Your task to perform on an android device: See recent photos Image 0: 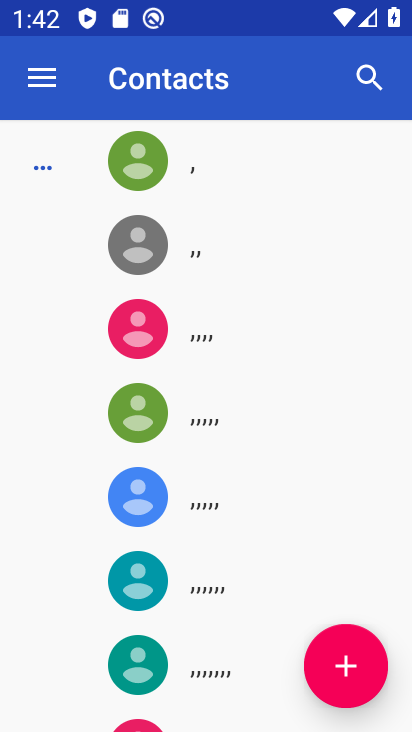
Step 0: press back button
Your task to perform on an android device: See recent photos Image 1: 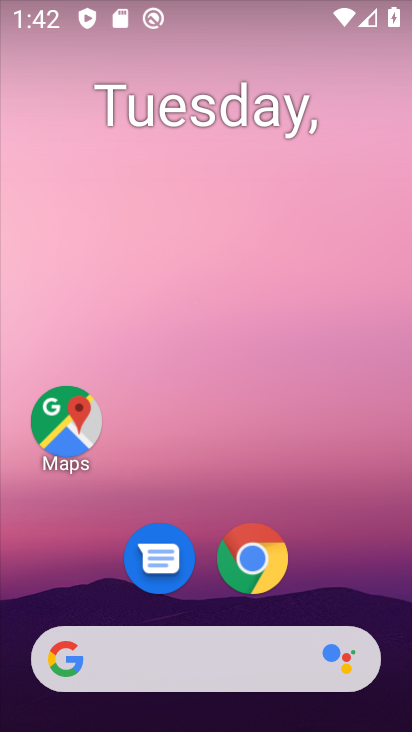
Step 1: drag from (183, 597) to (324, 39)
Your task to perform on an android device: See recent photos Image 2: 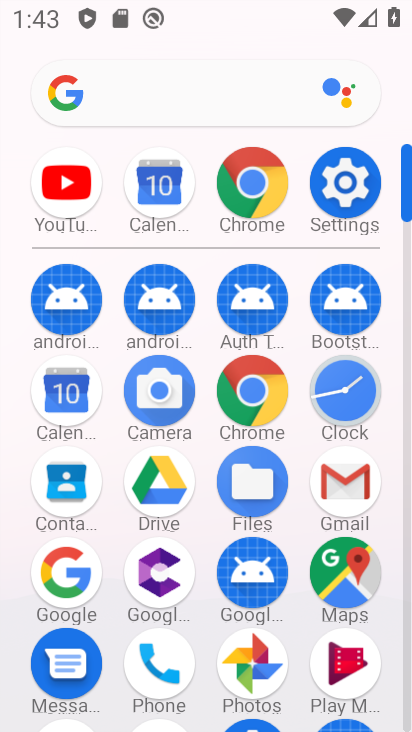
Step 2: click (247, 660)
Your task to perform on an android device: See recent photos Image 3: 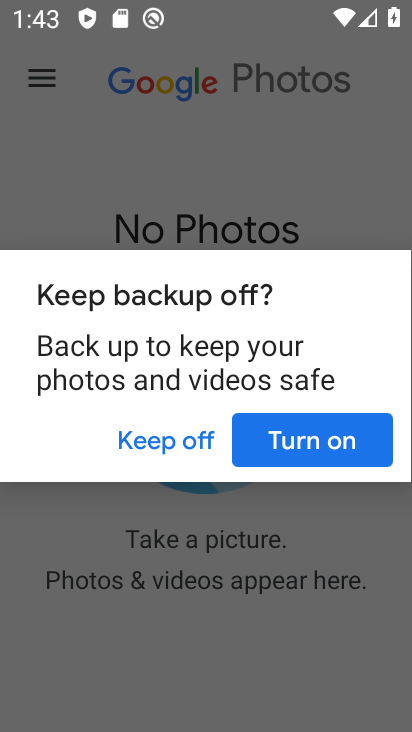
Step 3: click (137, 453)
Your task to perform on an android device: See recent photos Image 4: 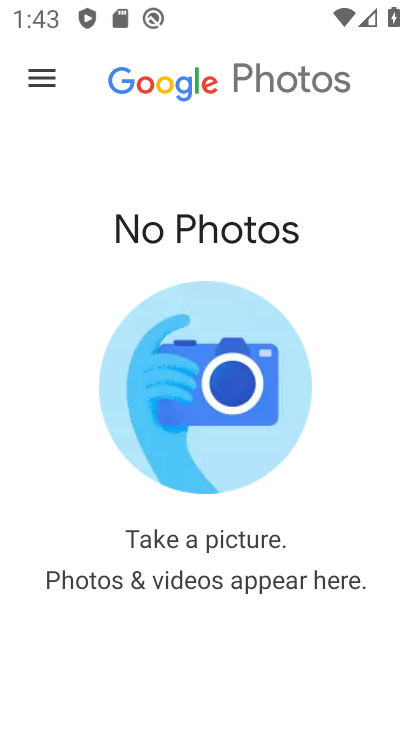
Step 4: task complete